Your task to perform on an android device: set the stopwatch Image 0: 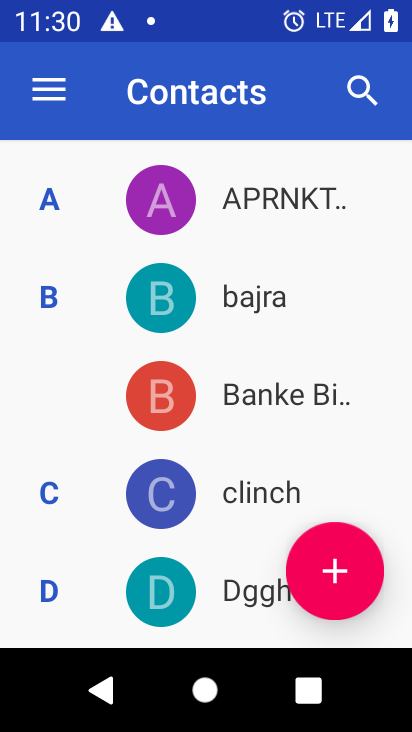
Step 0: press home button
Your task to perform on an android device: set the stopwatch Image 1: 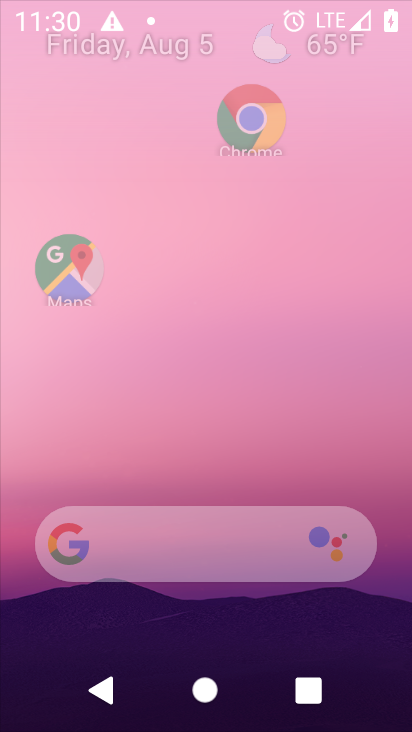
Step 1: press home button
Your task to perform on an android device: set the stopwatch Image 2: 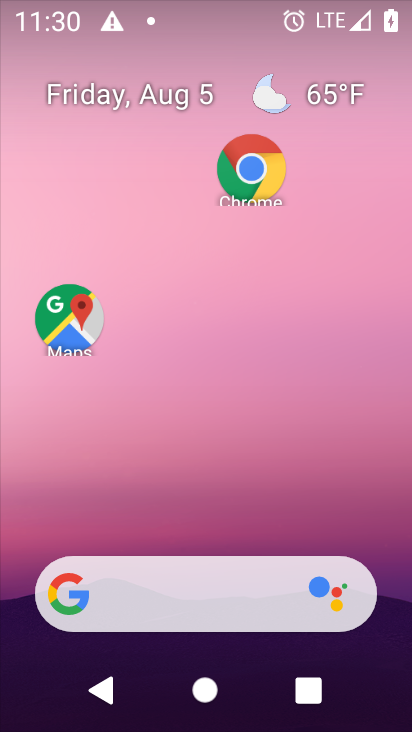
Step 2: drag from (214, 474) to (206, 80)
Your task to perform on an android device: set the stopwatch Image 3: 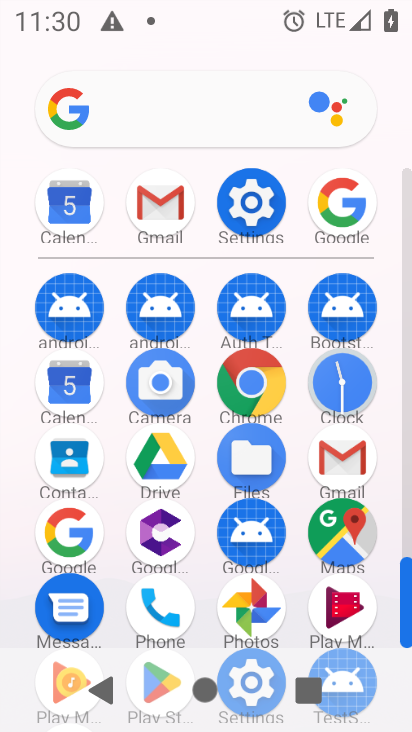
Step 3: click (323, 368)
Your task to perform on an android device: set the stopwatch Image 4: 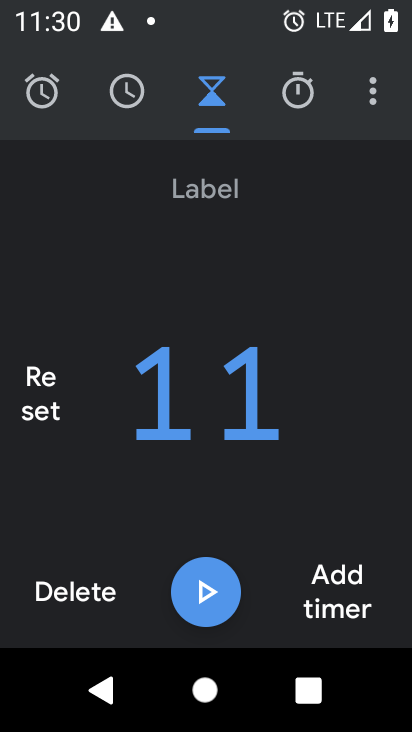
Step 4: click (297, 86)
Your task to perform on an android device: set the stopwatch Image 5: 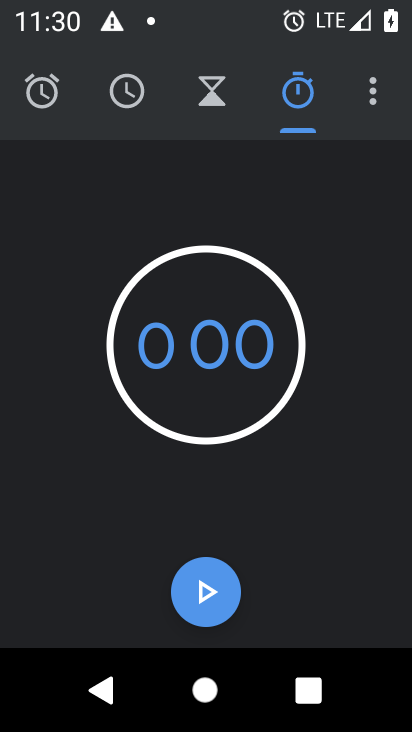
Step 5: click (214, 598)
Your task to perform on an android device: set the stopwatch Image 6: 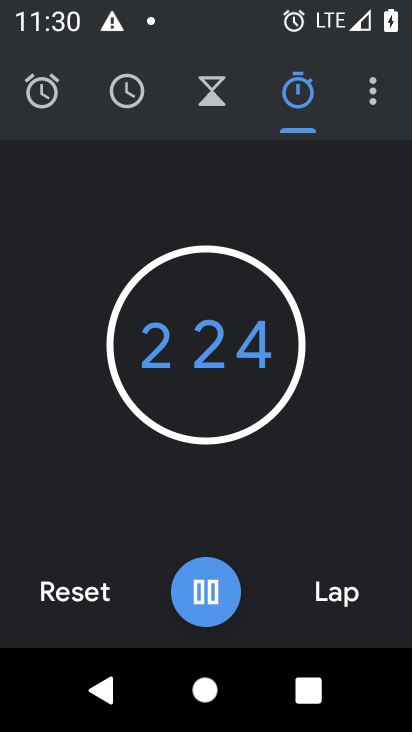
Step 6: task complete